Your task to perform on an android device: choose inbox layout in the gmail app Image 0: 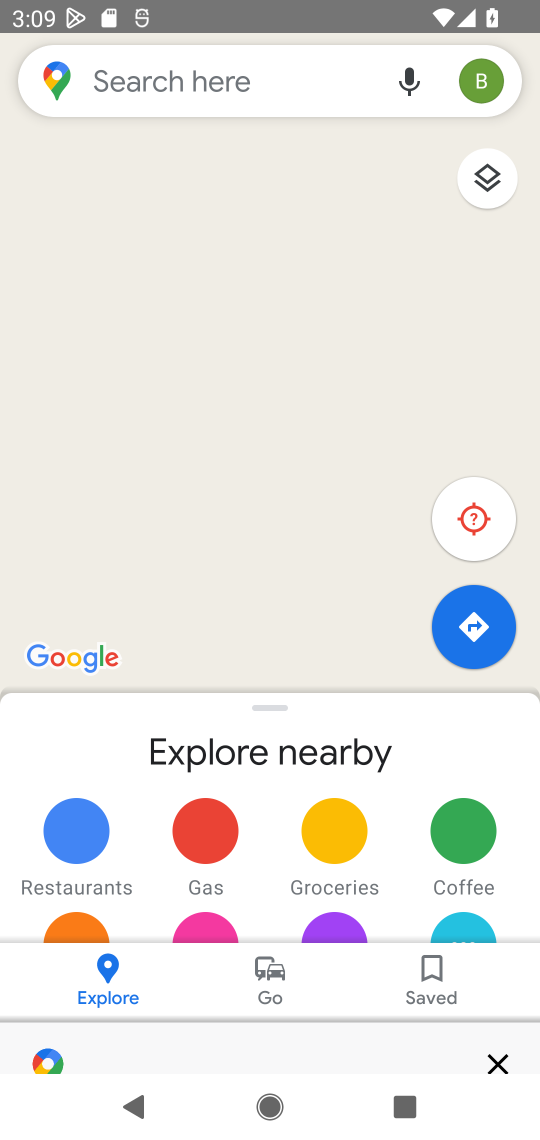
Step 0: press home button
Your task to perform on an android device: choose inbox layout in the gmail app Image 1: 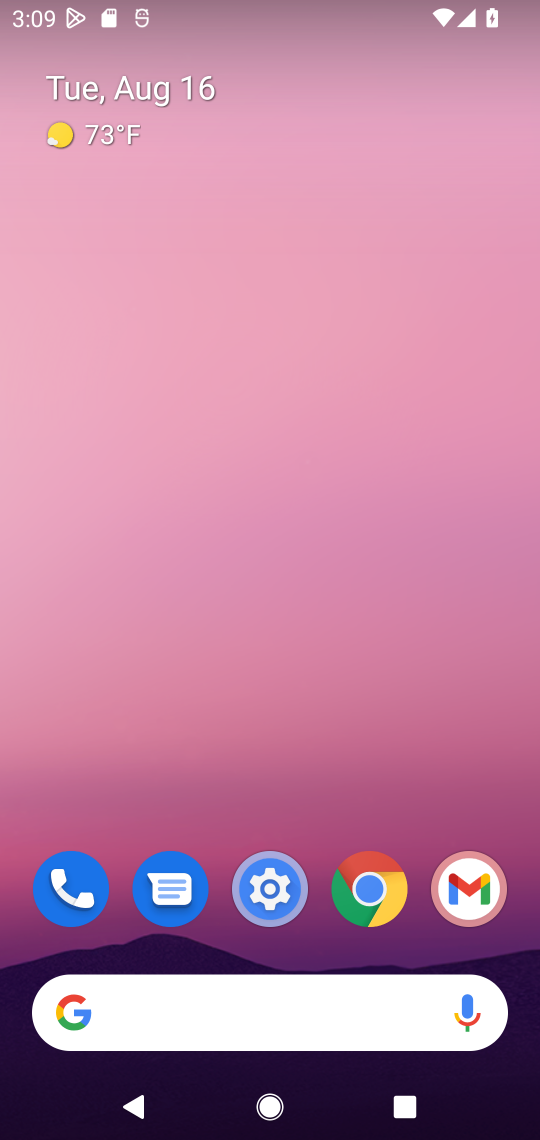
Step 1: click (473, 907)
Your task to perform on an android device: choose inbox layout in the gmail app Image 2: 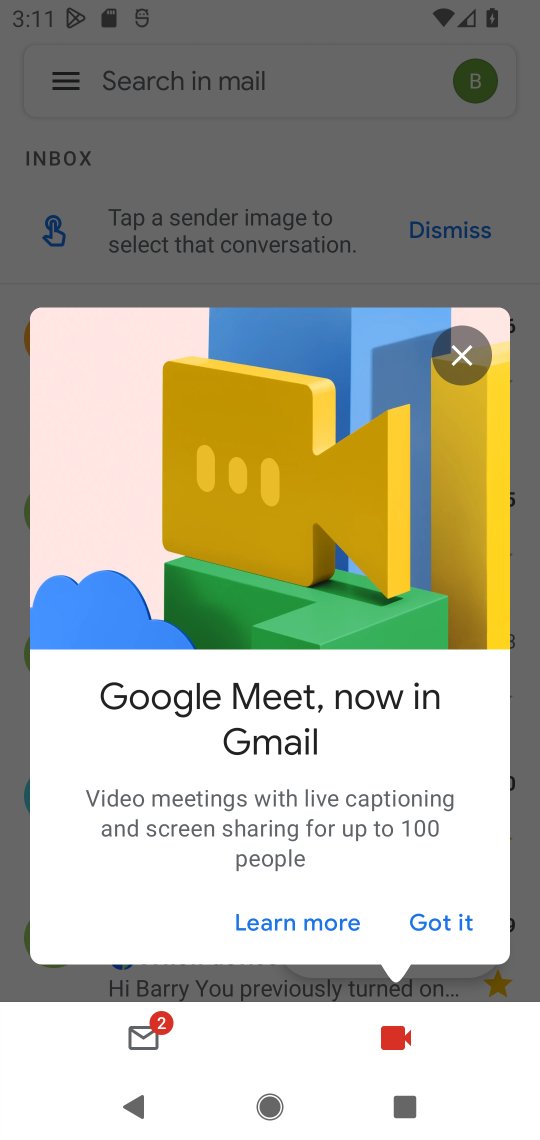
Step 2: task complete